Your task to perform on an android device: Go to Google Image 0: 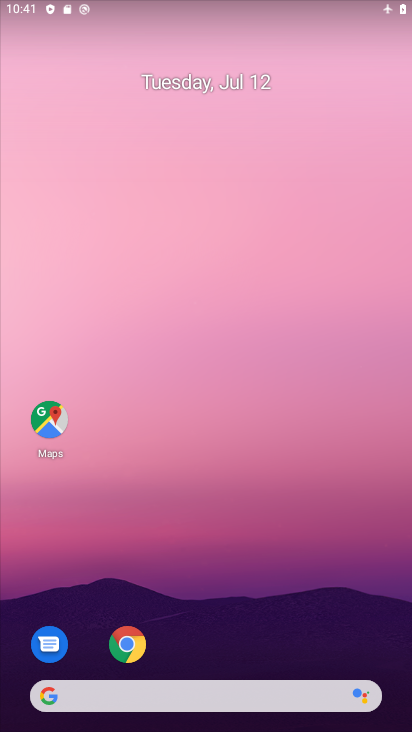
Step 0: drag from (166, 680) to (156, 418)
Your task to perform on an android device: Go to Google Image 1: 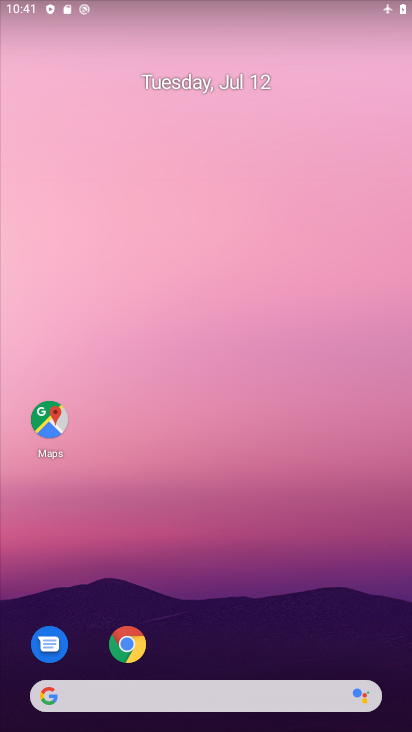
Step 1: drag from (206, 697) to (167, 420)
Your task to perform on an android device: Go to Google Image 2: 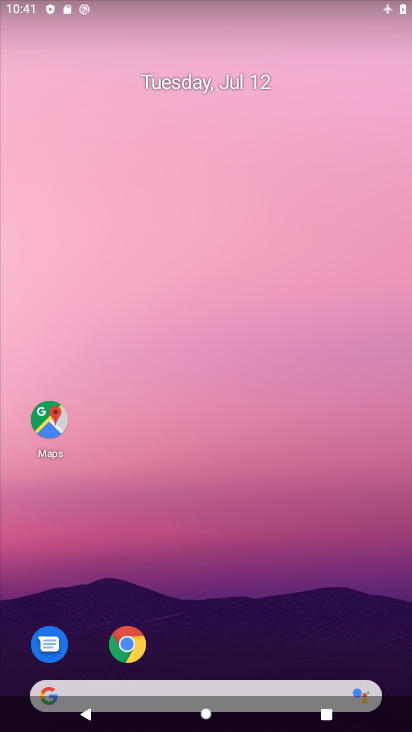
Step 2: drag from (200, 671) to (185, 290)
Your task to perform on an android device: Go to Google Image 3: 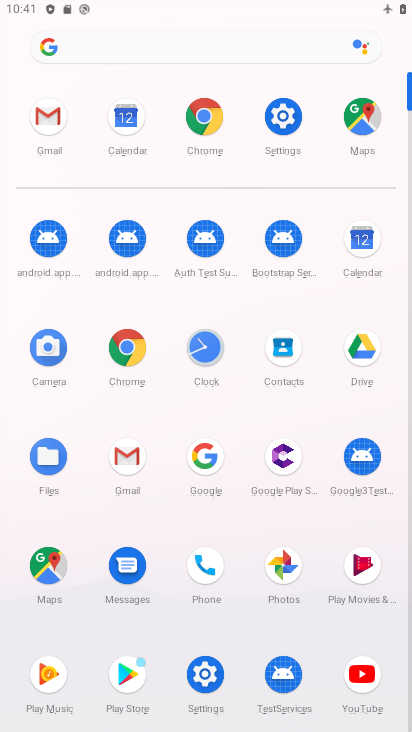
Step 3: click (203, 466)
Your task to perform on an android device: Go to Google Image 4: 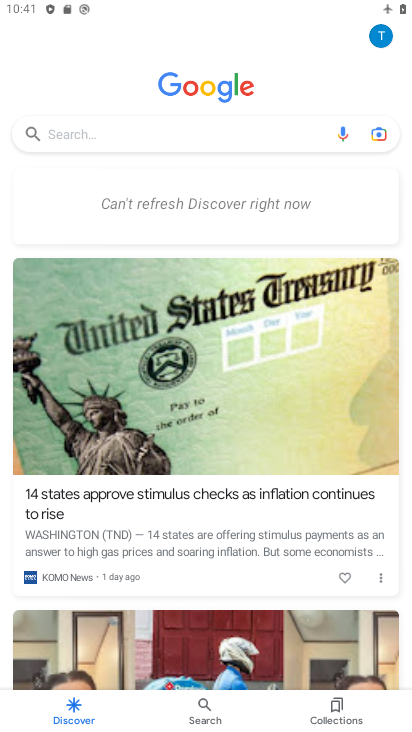
Step 4: task complete